Your task to perform on an android device: Open calendar and show me the second week of next month Image 0: 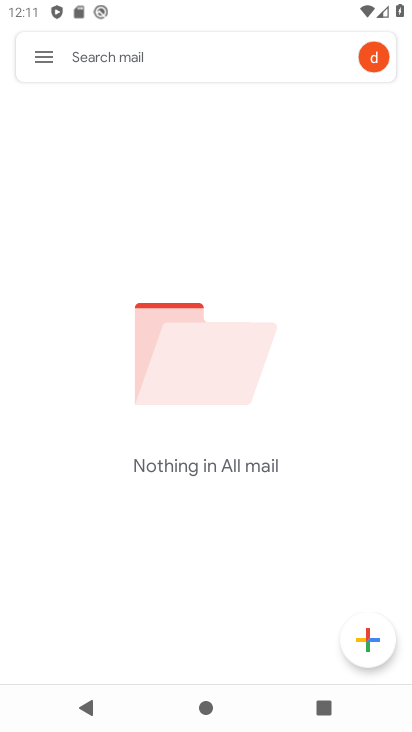
Step 0: press home button
Your task to perform on an android device: Open calendar and show me the second week of next month Image 1: 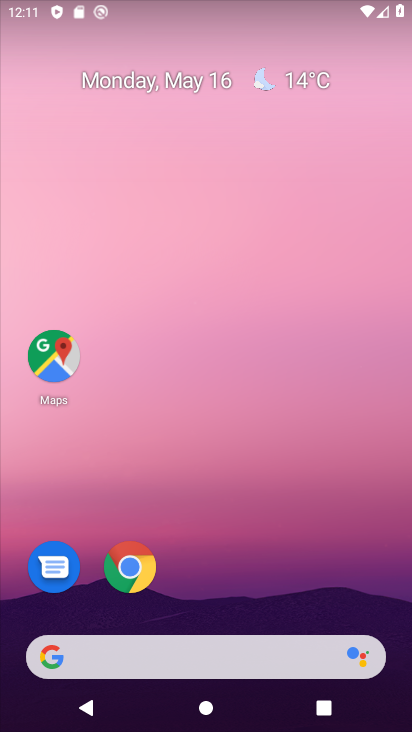
Step 1: drag from (204, 525) to (137, 171)
Your task to perform on an android device: Open calendar and show me the second week of next month Image 2: 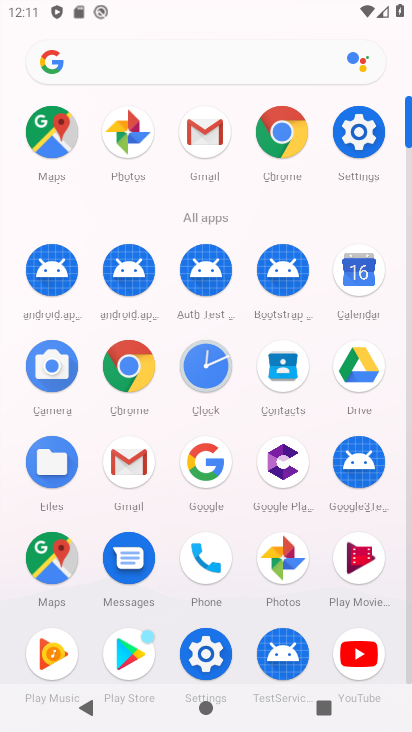
Step 2: click (365, 277)
Your task to perform on an android device: Open calendar and show me the second week of next month Image 3: 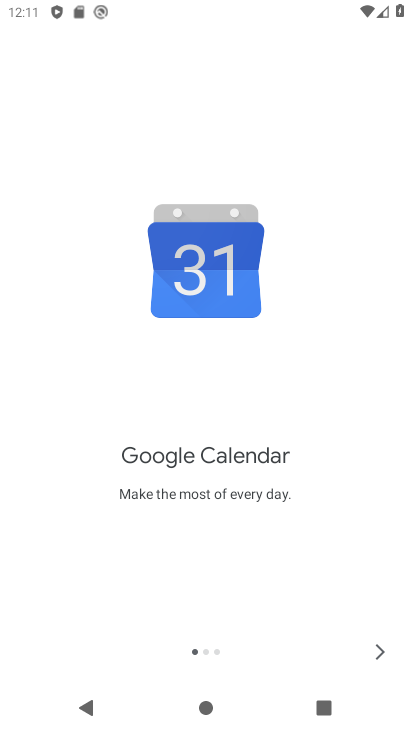
Step 3: click (382, 660)
Your task to perform on an android device: Open calendar and show me the second week of next month Image 4: 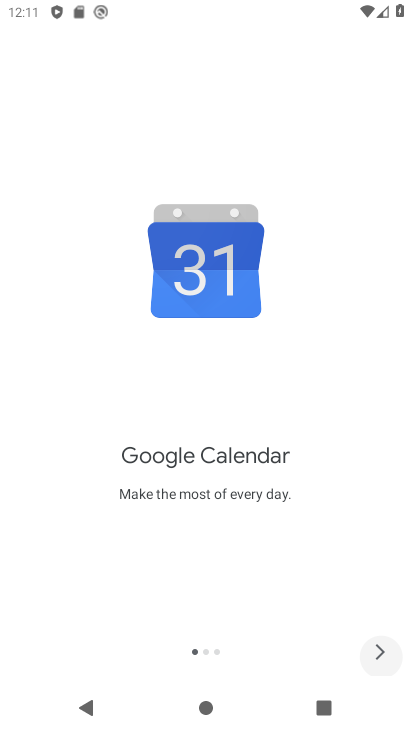
Step 4: click (382, 660)
Your task to perform on an android device: Open calendar and show me the second week of next month Image 5: 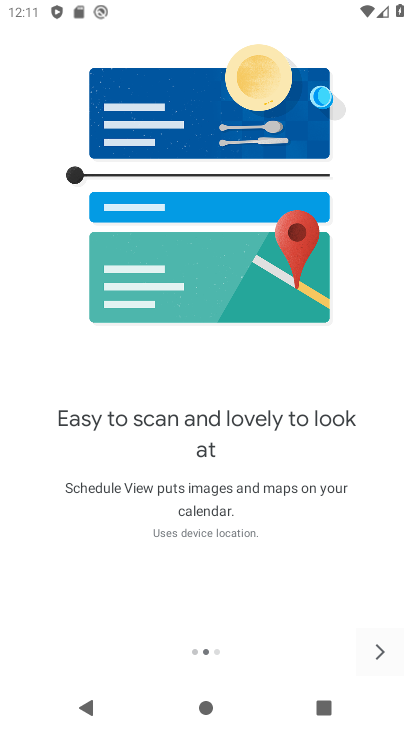
Step 5: click (382, 660)
Your task to perform on an android device: Open calendar and show me the second week of next month Image 6: 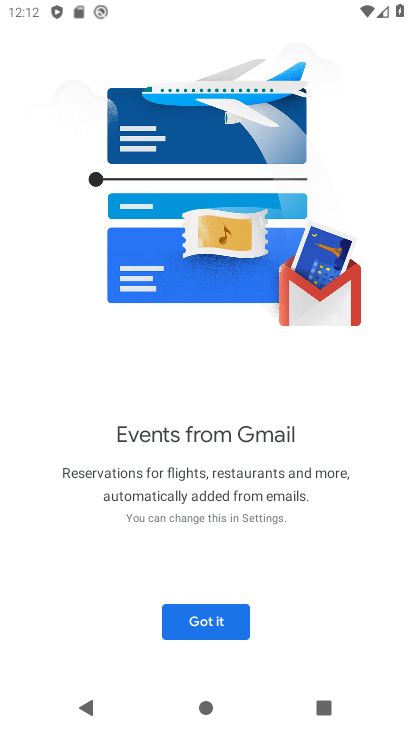
Step 6: click (188, 617)
Your task to perform on an android device: Open calendar and show me the second week of next month Image 7: 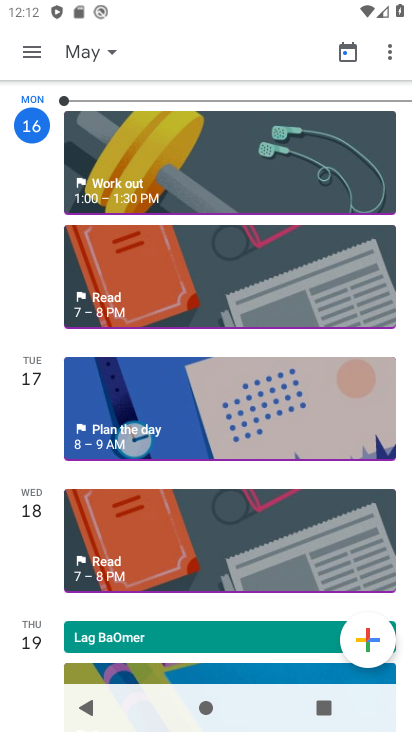
Step 7: click (31, 57)
Your task to perform on an android device: Open calendar and show me the second week of next month Image 8: 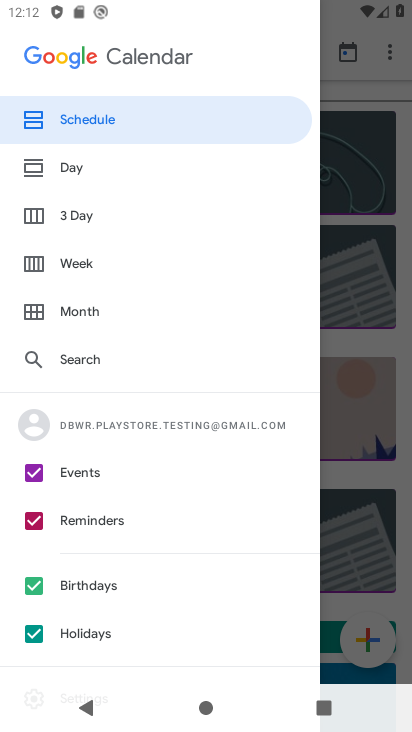
Step 8: click (75, 264)
Your task to perform on an android device: Open calendar and show me the second week of next month Image 9: 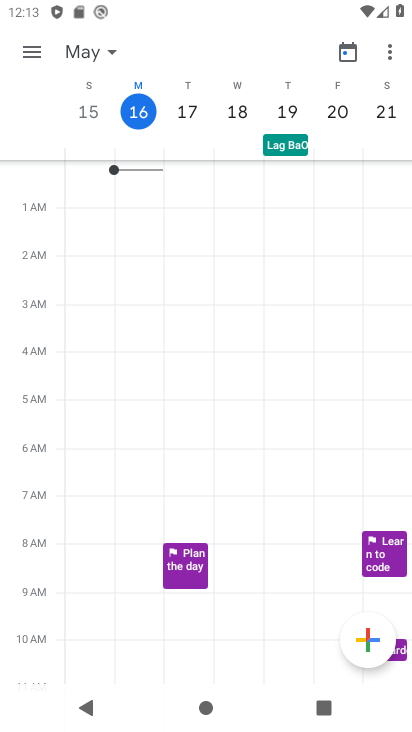
Step 9: click (110, 53)
Your task to perform on an android device: Open calendar and show me the second week of next month Image 10: 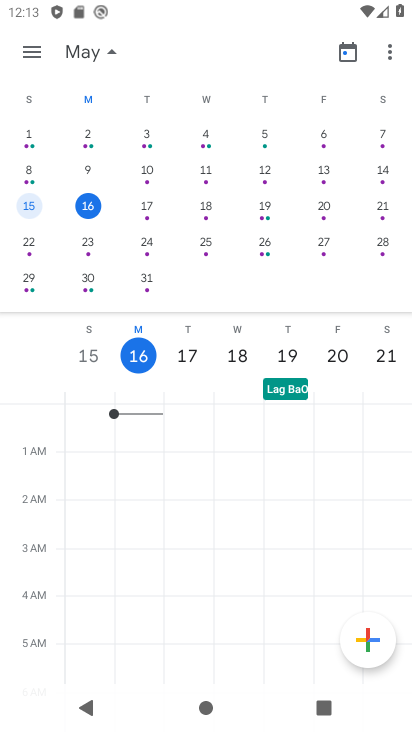
Step 10: drag from (355, 218) to (37, 228)
Your task to perform on an android device: Open calendar and show me the second week of next month Image 11: 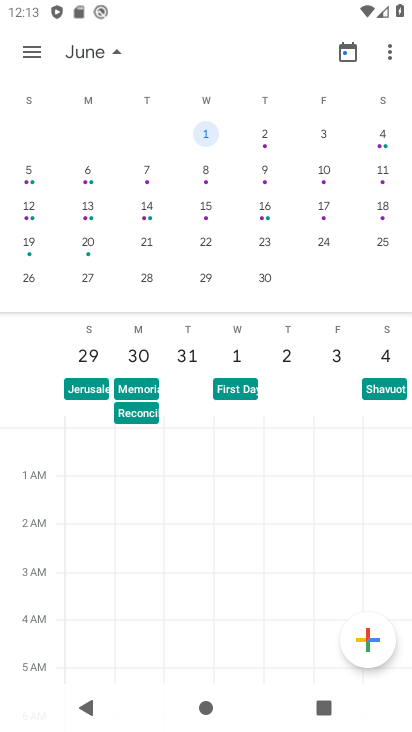
Step 11: click (204, 175)
Your task to perform on an android device: Open calendar and show me the second week of next month Image 12: 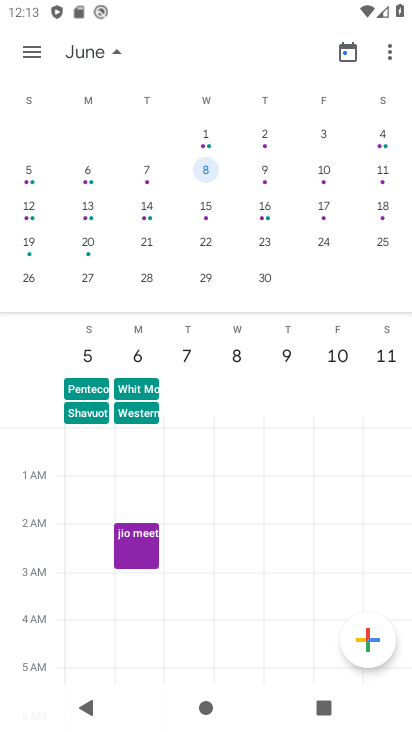
Step 12: task complete